Your task to perform on an android device: check out phone information Image 0: 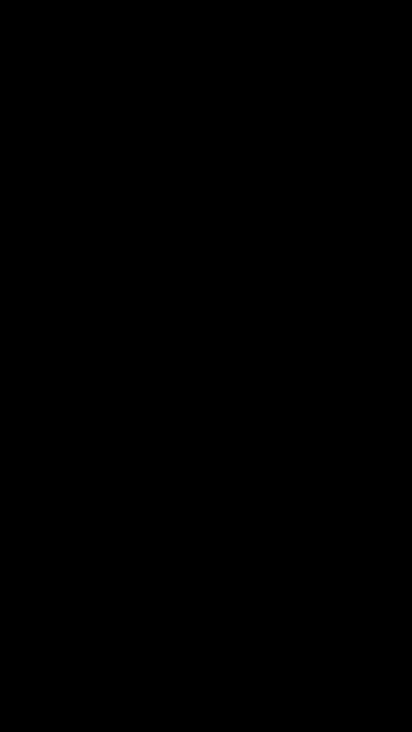
Step 0: press home button
Your task to perform on an android device: check out phone information Image 1: 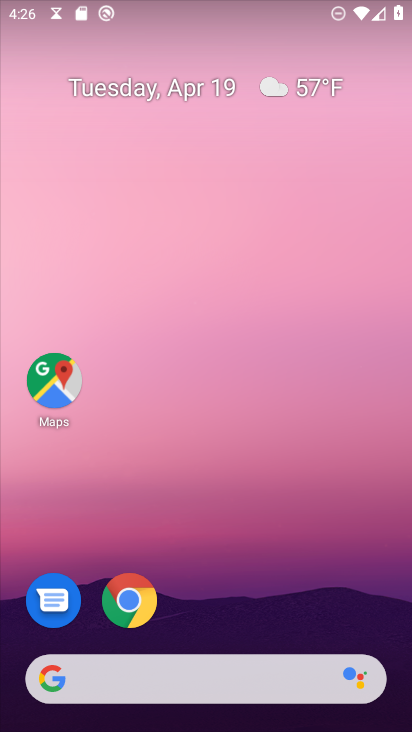
Step 1: drag from (308, 540) to (269, 177)
Your task to perform on an android device: check out phone information Image 2: 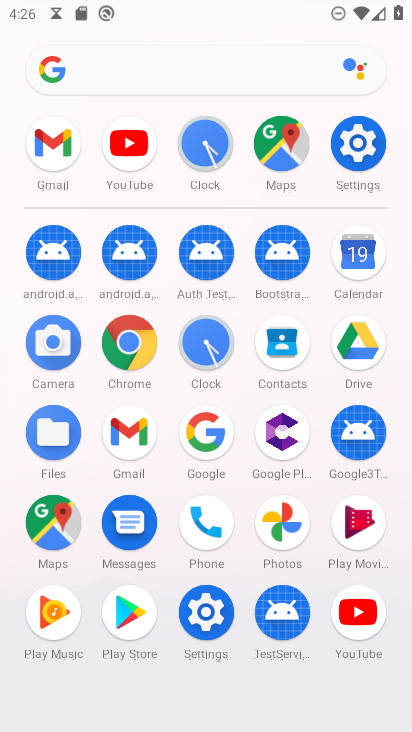
Step 2: click (349, 131)
Your task to perform on an android device: check out phone information Image 3: 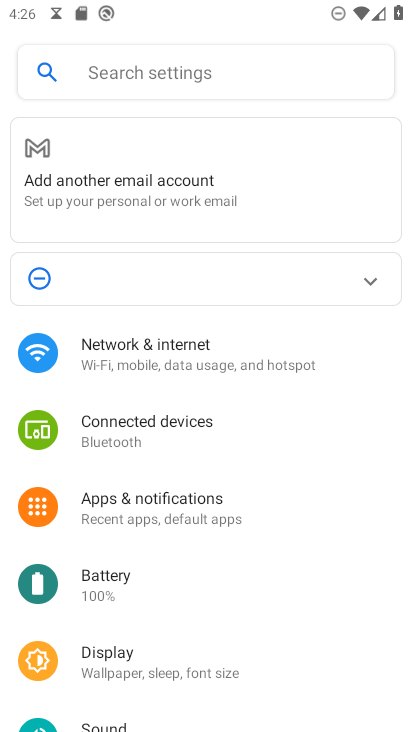
Step 3: drag from (265, 617) to (227, 284)
Your task to perform on an android device: check out phone information Image 4: 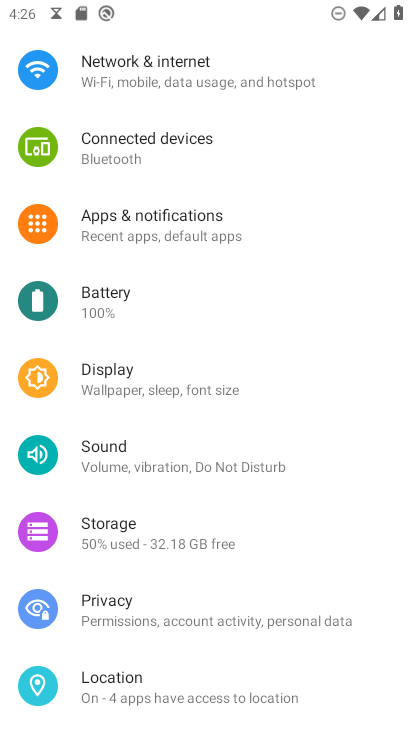
Step 4: drag from (289, 640) to (278, 229)
Your task to perform on an android device: check out phone information Image 5: 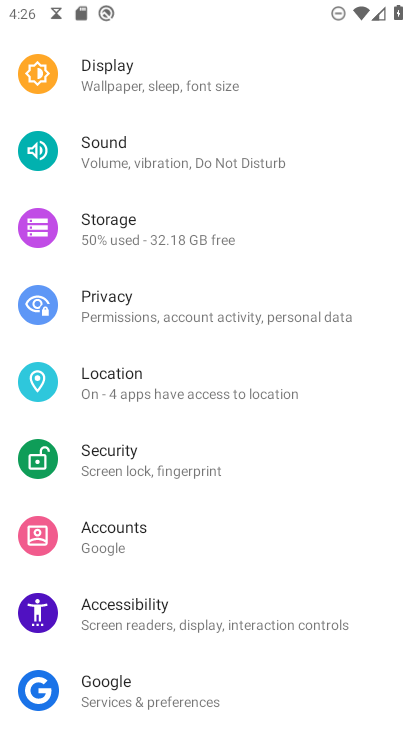
Step 5: drag from (300, 523) to (256, 85)
Your task to perform on an android device: check out phone information Image 6: 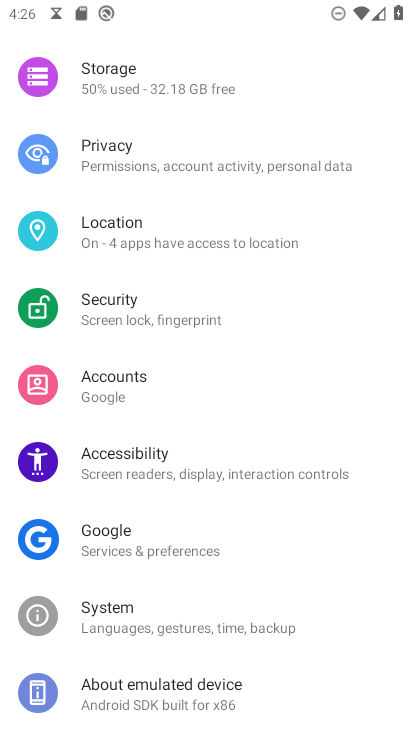
Step 6: click (257, 674)
Your task to perform on an android device: check out phone information Image 7: 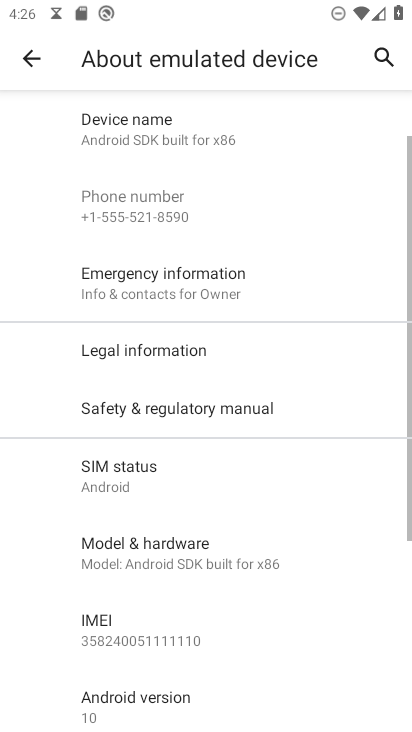
Step 7: task complete